Your task to perform on an android device: turn on translation in the chrome app Image 0: 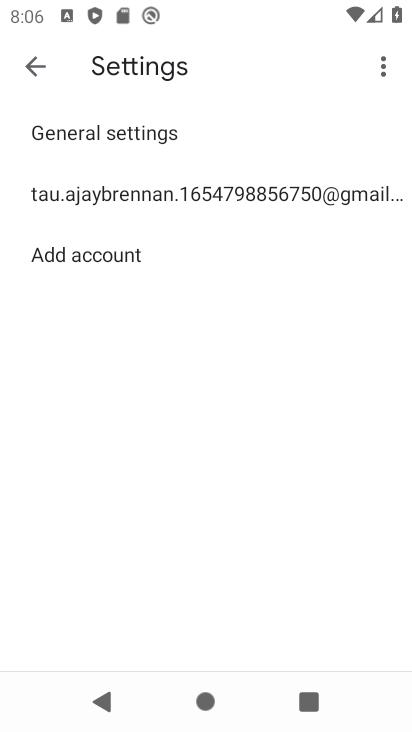
Step 0: press home button
Your task to perform on an android device: turn on translation in the chrome app Image 1: 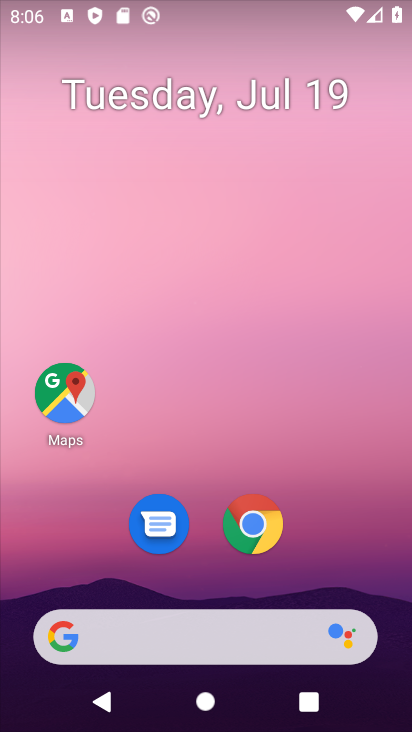
Step 1: click (252, 553)
Your task to perform on an android device: turn on translation in the chrome app Image 2: 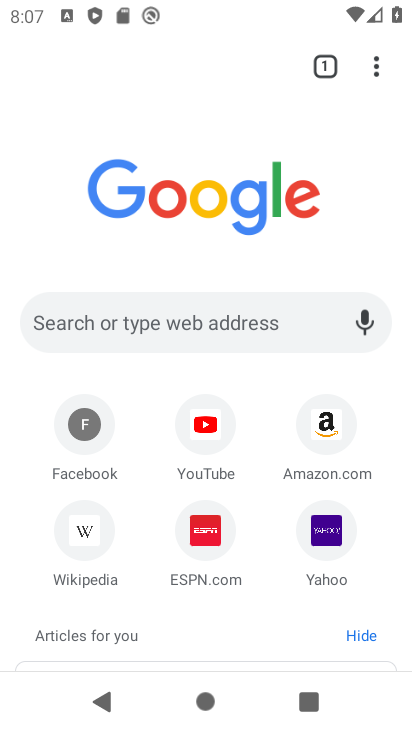
Step 2: click (376, 62)
Your task to perform on an android device: turn on translation in the chrome app Image 3: 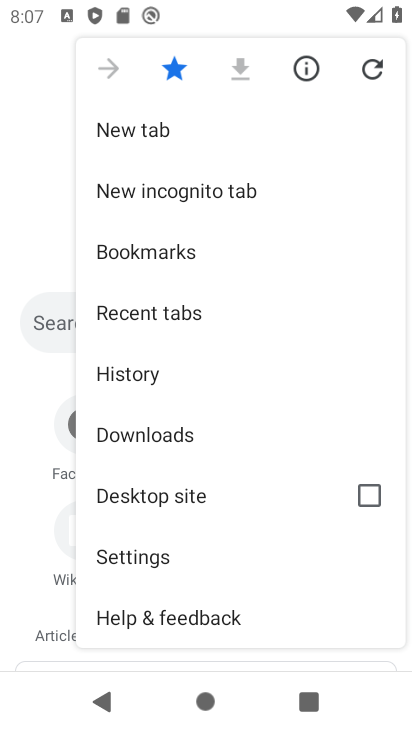
Step 3: click (171, 550)
Your task to perform on an android device: turn on translation in the chrome app Image 4: 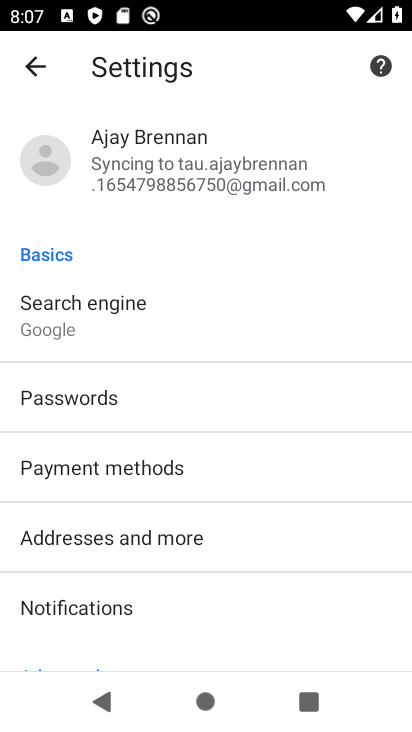
Step 4: drag from (275, 527) to (316, 131)
Your task to perform on an android device: turn on translation in the chrome app Image 5: 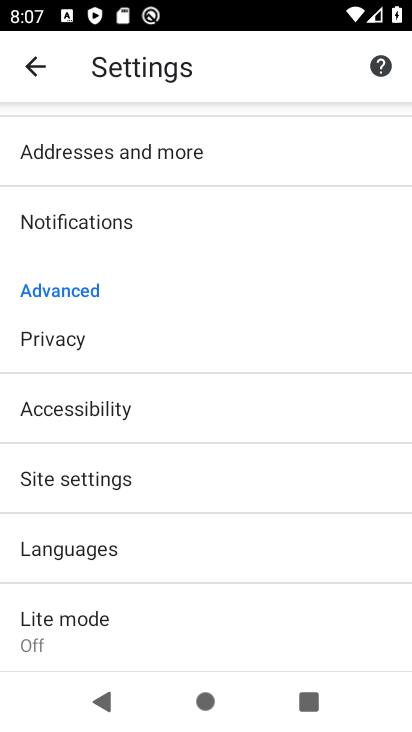
Step 5: click (212, 551)
Your task to perform on an android device: turn on translation in the chrome app Image 6: 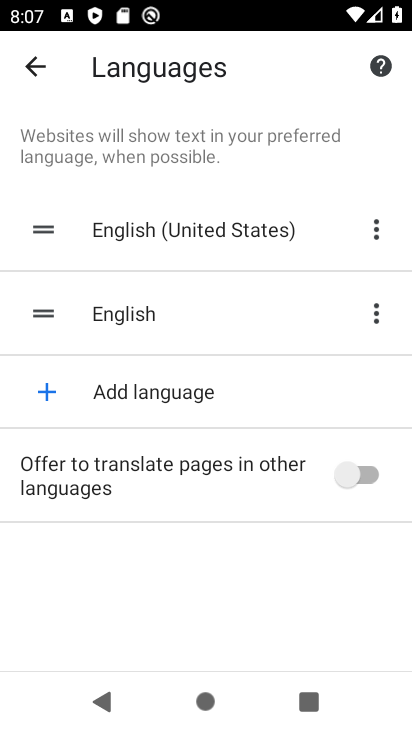
Step 6: click (363, 466)
Your task to perform on an android device: turn on translation in the chrome app Image 7: 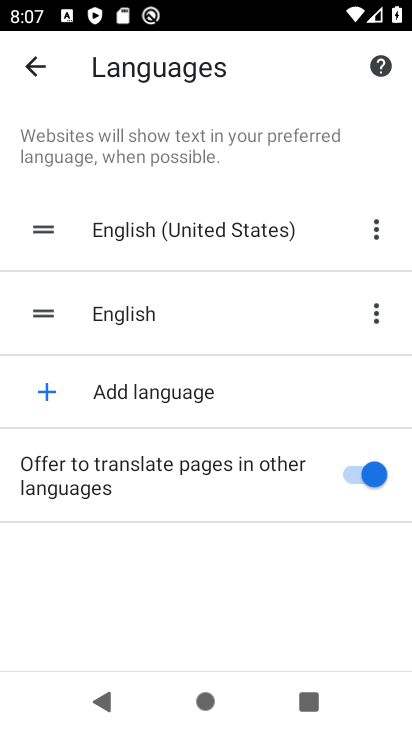
Step 7: task complete